Your task to perform on an android device: refresh tabs in the chrome app Image 0: 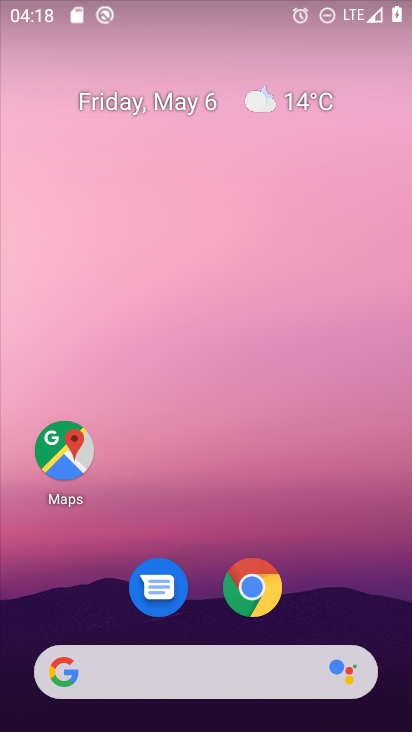
Step 0: click (253, 592)
Your task to perform on an android device: refresh tabs in the chrome app Image 1: 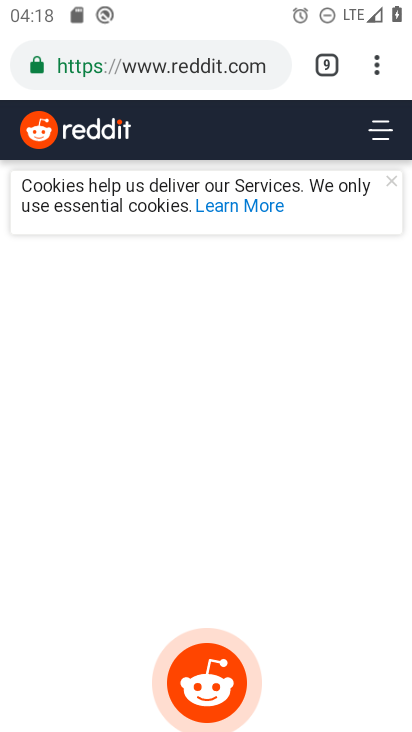
Step 1: click (376, 59)
Your task to perform on an android device: refresh tabs in the chrome app Image 2: 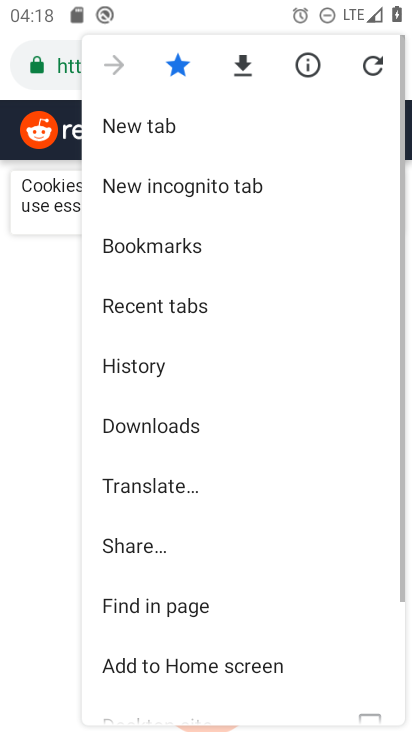
Step 2: click (376, 59)
Your task to perform on an android device: refresh tabs in the chrome app Image 3: 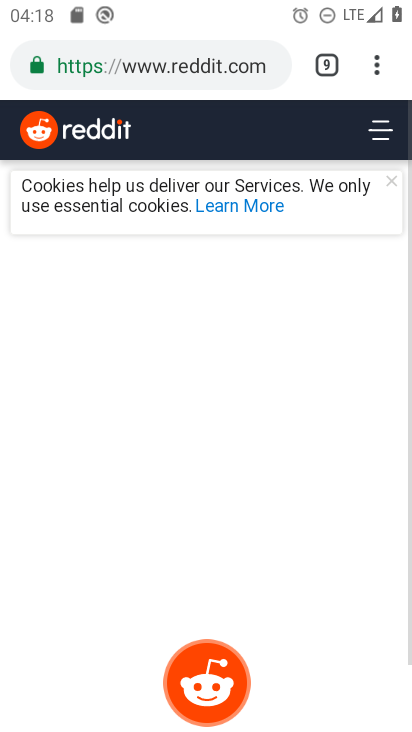
Step 3: task complete